Your task to perform on an android device: What's the weather? Image 0: 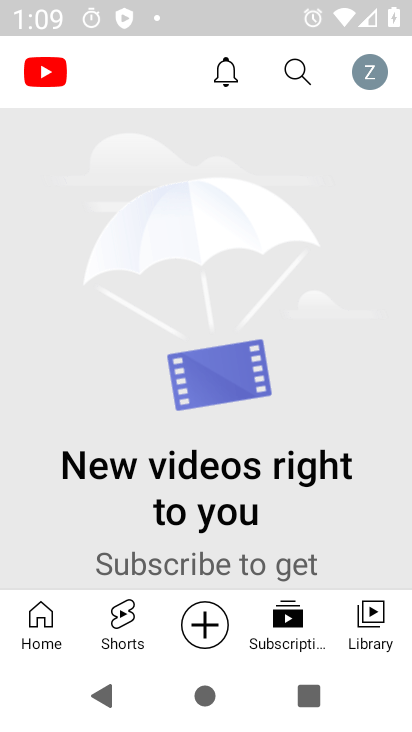
Step 0: press home button
Your task to perform on an android device: What's the weather? Image 1: 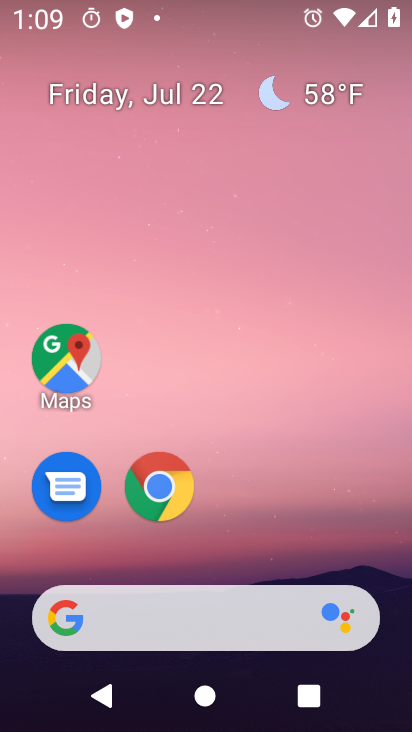
Step 1: click (207, 615)
Your task to perform on an android device: What's the weather? Image 2: 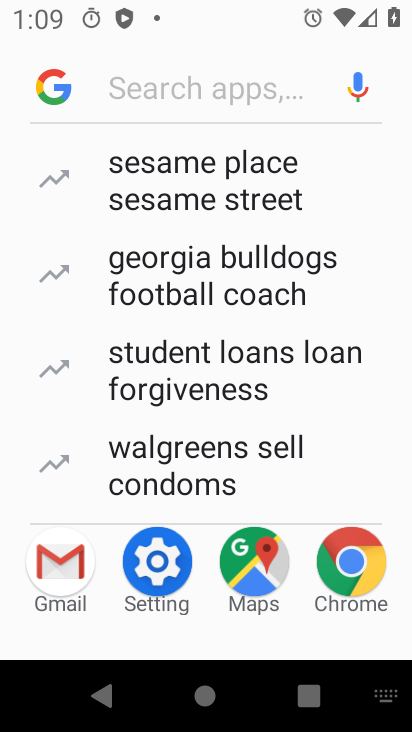
Step 2: type "weather"
Your task to perform on an android device: What's the weather? Image 3: 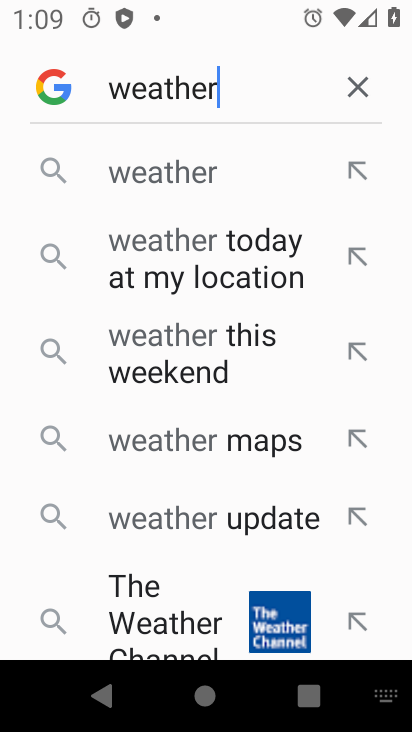
Step 3: click (187, 175)
Your task to perform on an android device: What's the weather? Image 4: 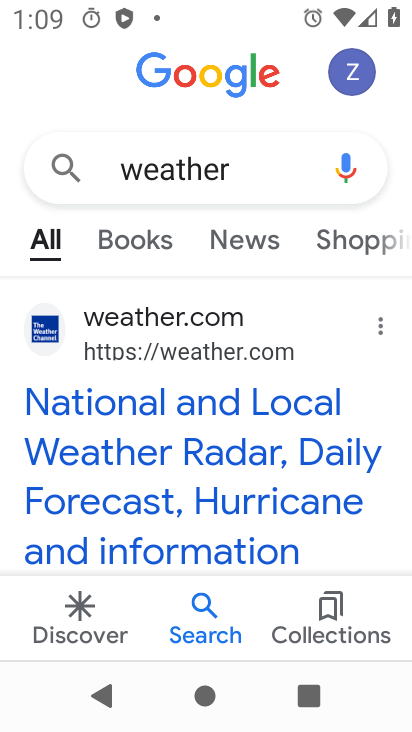
Step 4: task complete